Your task to perform on an android device: open app "ColorNote Notepad Notes" (install if not already installed) Image 0: 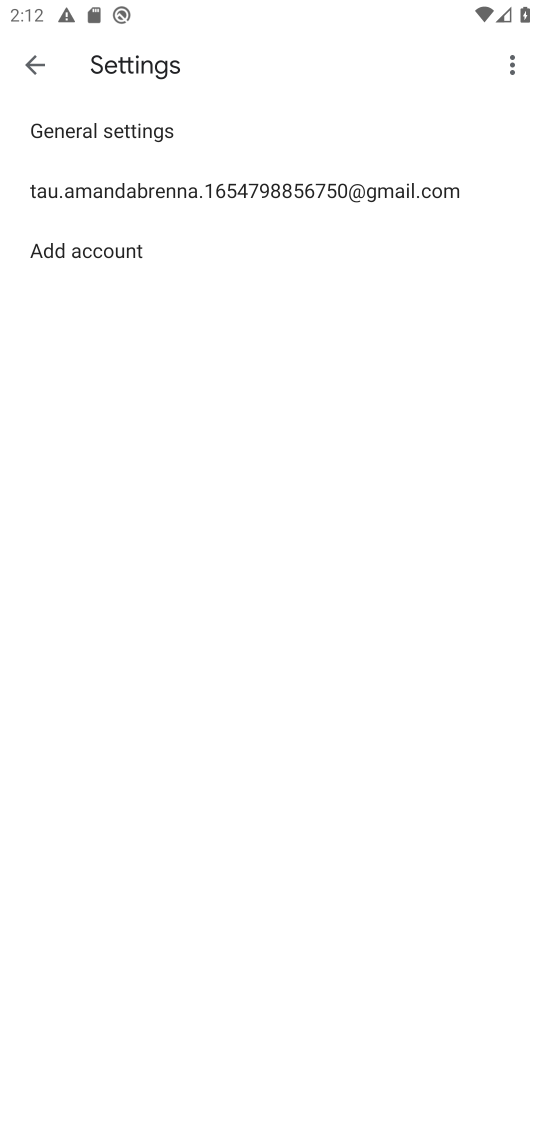
Step 0: press home button
Your task to perform on an android device: open app "ColorNote Notepad Notes" (install if not already installed) Image 1: 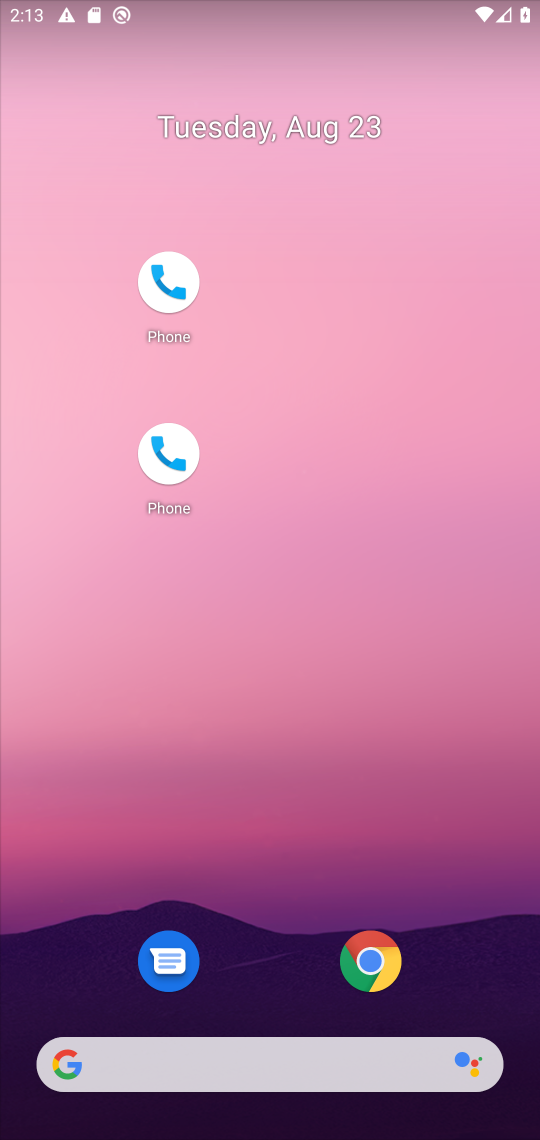
Step 1: drag from (268, 1015) to (263, 56)
Your task to perform on an android device: open app "ColorNote Notepad Notes" (install if not already installed) Image 2: 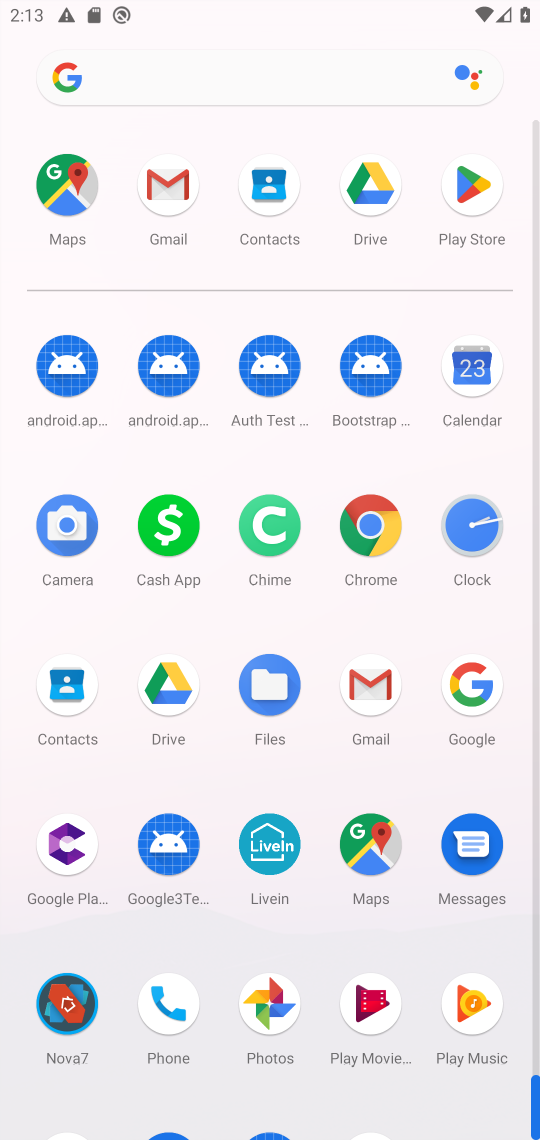
Step 2: click (463, 190)
Your task to perform on an android device: open app "ColorNote Notepad Notes" (install if not already installed) Image 3: 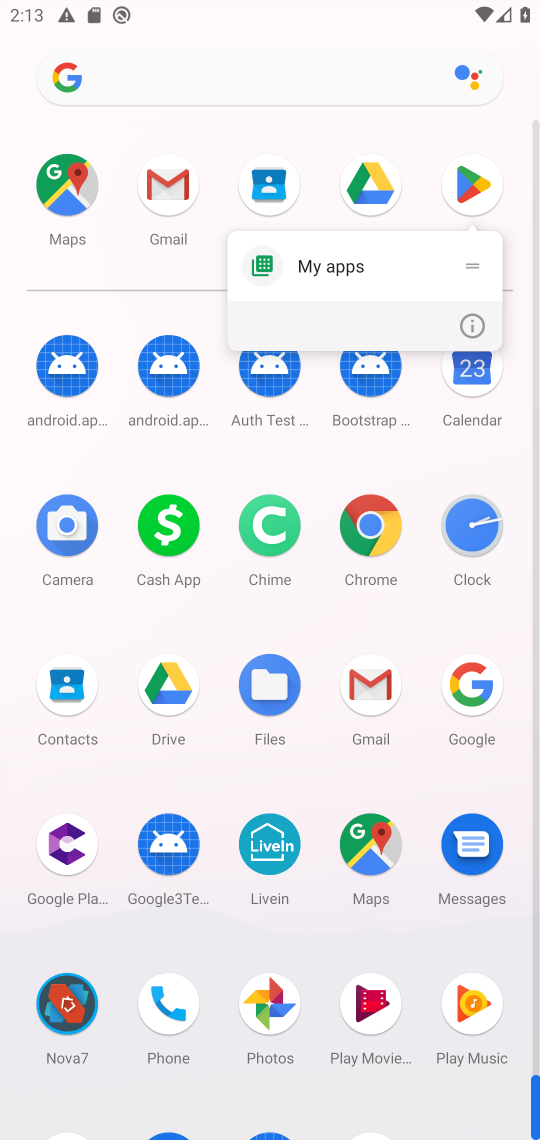
Step 3: click (463, 190)
Your task to perform on an android device: open app "ColorNote Notepad Notes" (install if not already installed) Image 4: 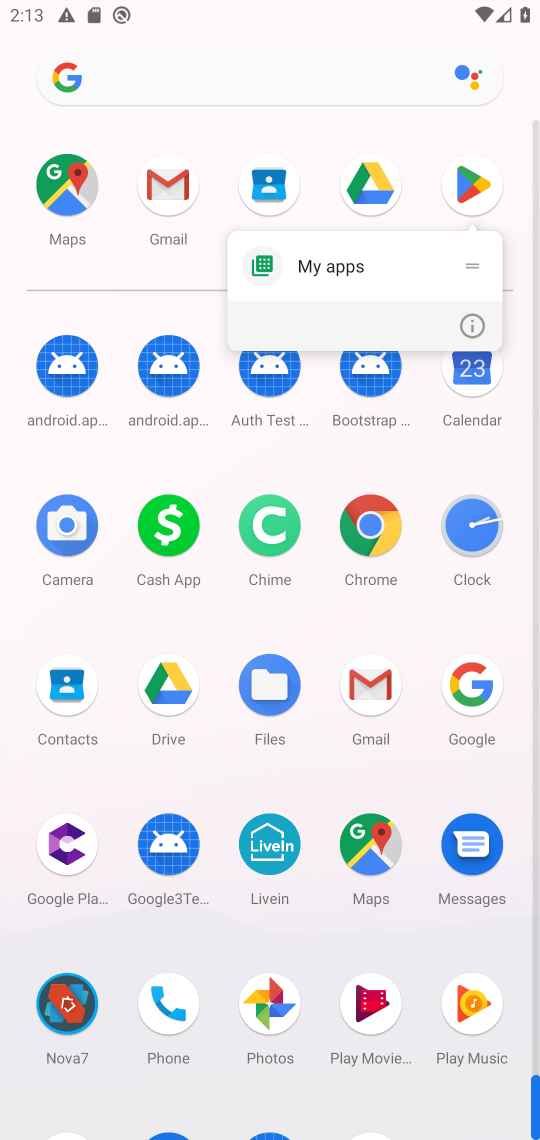
Step 4: click (453, 189)
Your task to perform on an android device: open app "ColorNote Notepad Notes" (install if not already installed) Image 5: 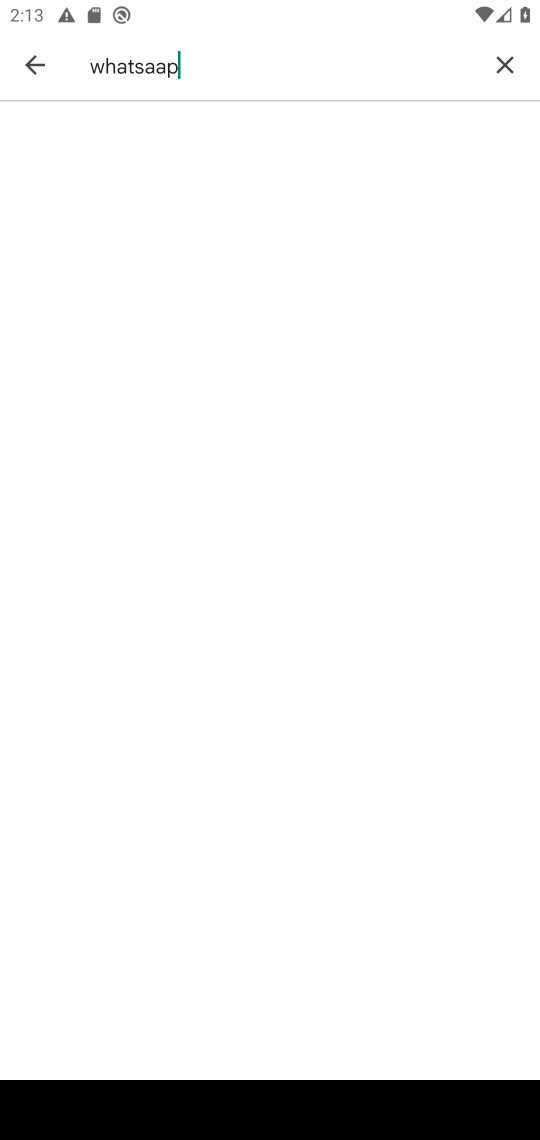
Step 5: click (506, 67)
Your task to perform on an android device: open app "ColorNote Notepad Notes" (install if not already installed) Image 6: 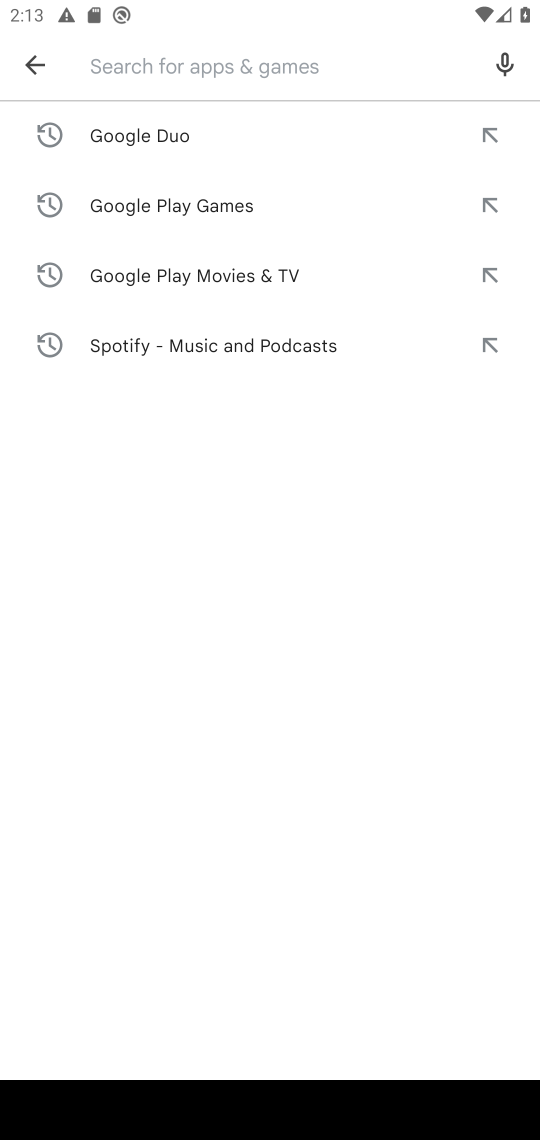
Step 6: type "colornotepad"
Your task to perform on an android device: open app "ColorNote Notepad Notes" (install if not already installed) Image 7: 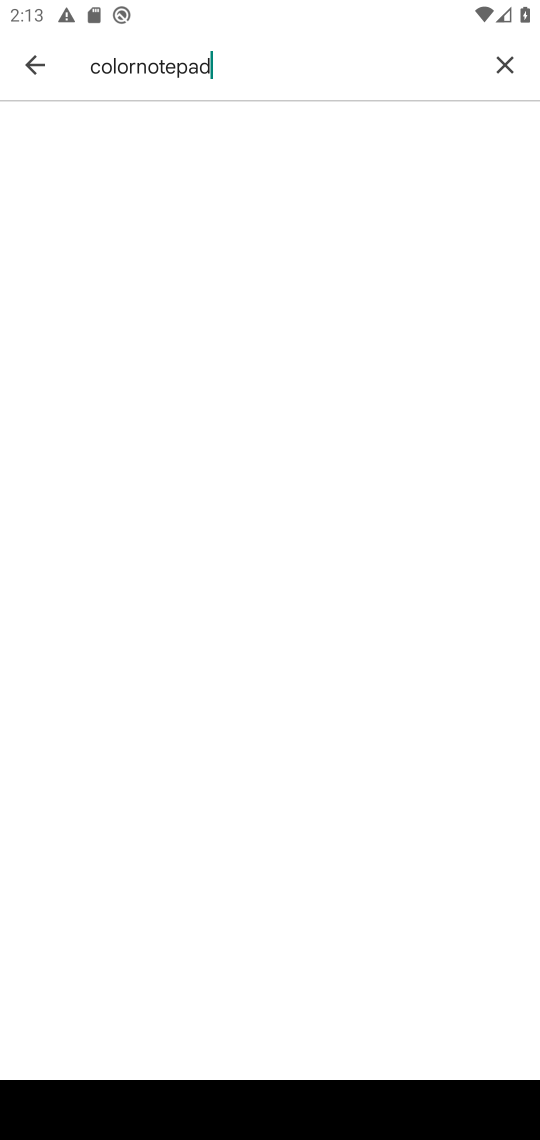
Step 7: task complete